Your task to perform on an android device: create a new album in the google photos Image 0: 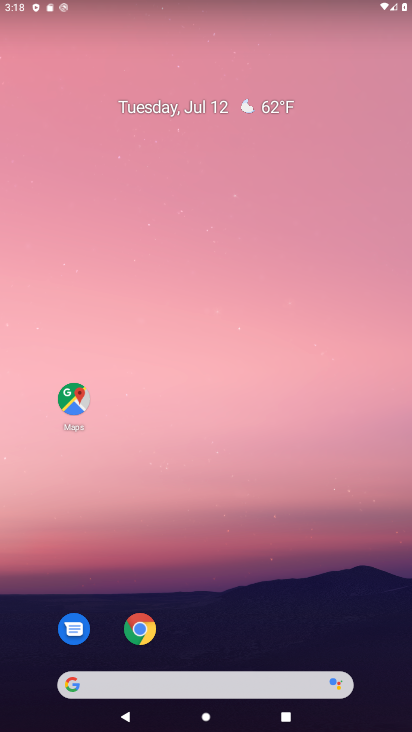
Step 0: drag from (219, 660) to (77, 72)
Your task to perform on an android device: create a new album in the google photos Image 1: 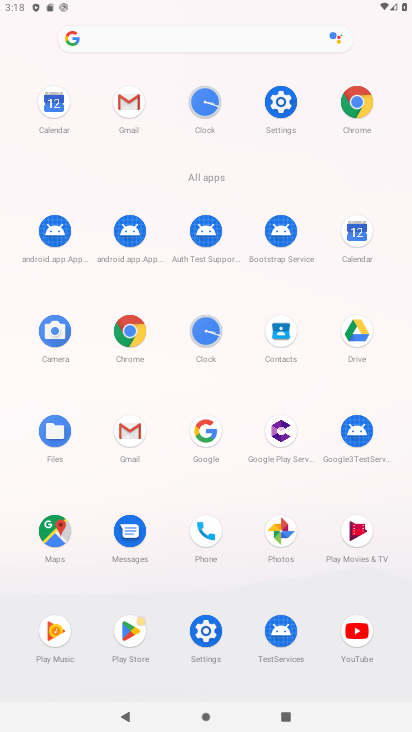
Step 1: click (293, 535)
Your task to perform on an android device: create a new album in the google photos Image 2: 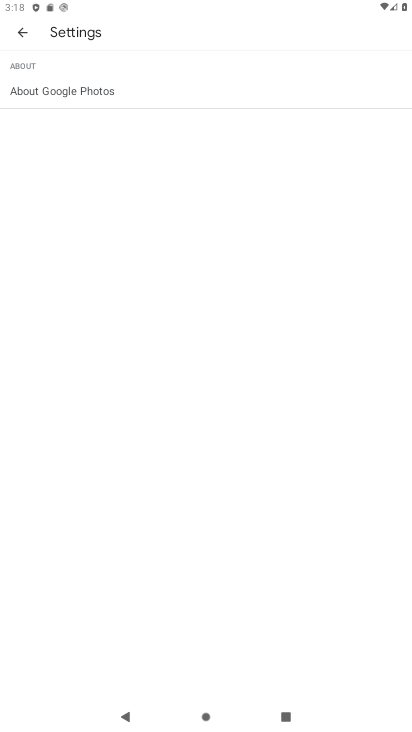
Step 2: click (27, 25)
Your task to perform on an android device: create a new album in the google photos Image 3: 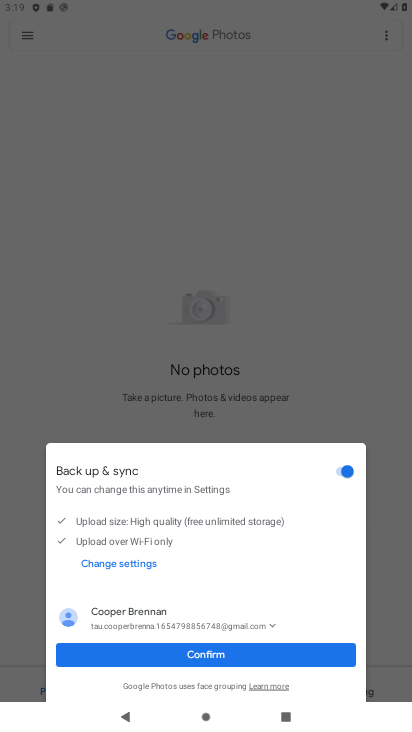
Step 3: click (198, 647)
Your task to perform on an android device: create a new album in the google photos Image 4: 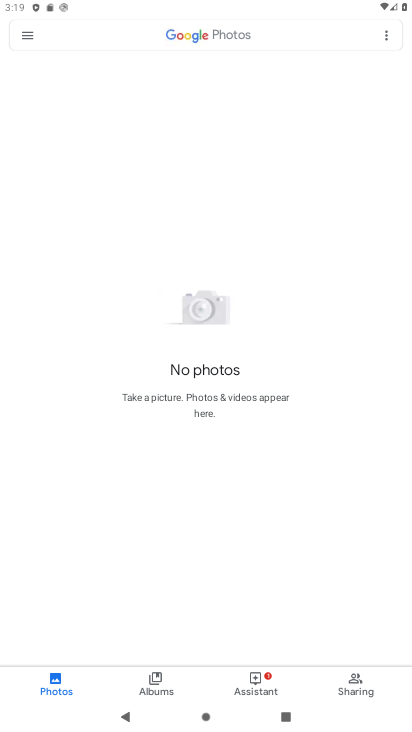
Step 4: click (160, 677)
Your task to perform on an android device: create a new album in the google photos Image 5: 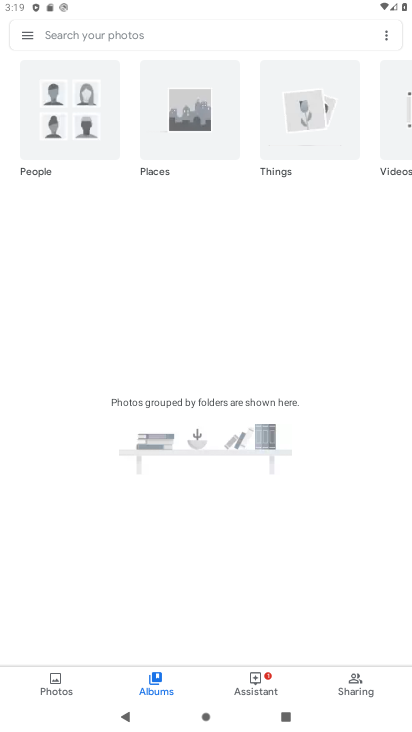
Step 5: task complete